Your task to perform on an android device: Show me popular games on the Play Store Image 0: 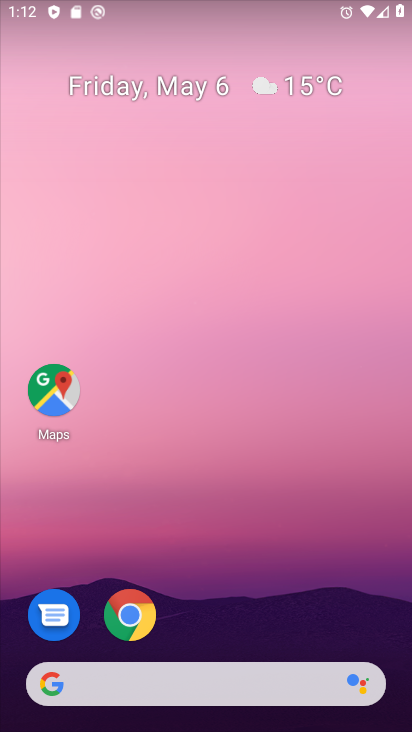
Step 0: drag from (285, 620) to (251, 109)
Your task to perform on an android device: Show me popular games on the Play Store Image 1: 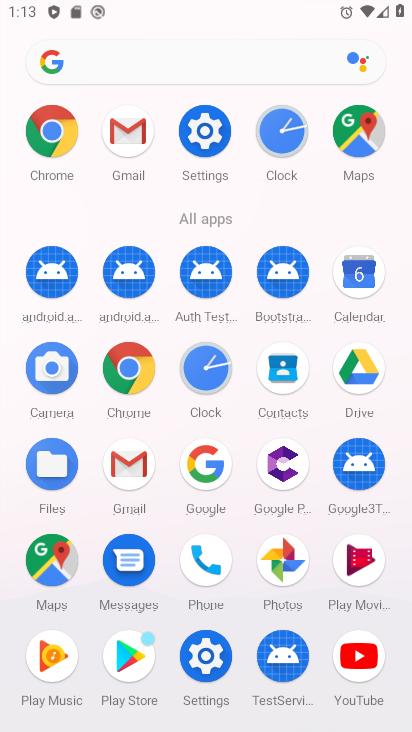
Step 1: click (117, 645)
Your task to perform on an android device: Show me popular games on the Play Store Image 2: 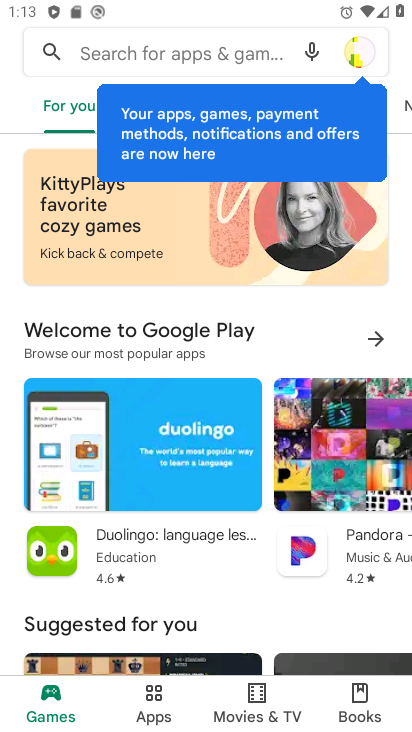
Step 2: drag from (201, 581) to (256, 110)
Your task to perform on an android device: Show me popular games on the Play Store Image 3: 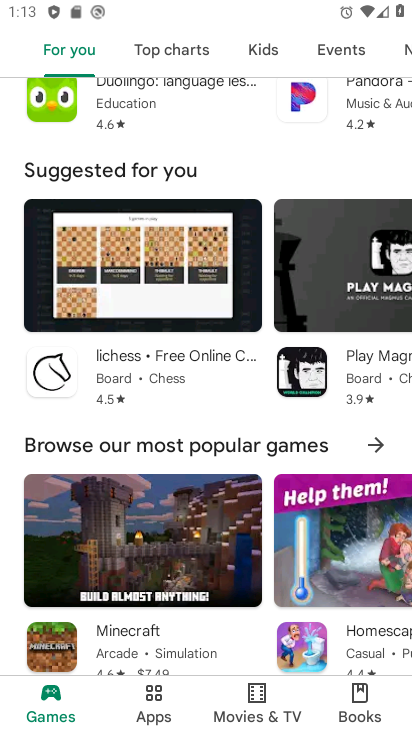
Step 3: click (374, 439)
Your task to perform on an android device: Show me popular games on the Play Store Image 4: 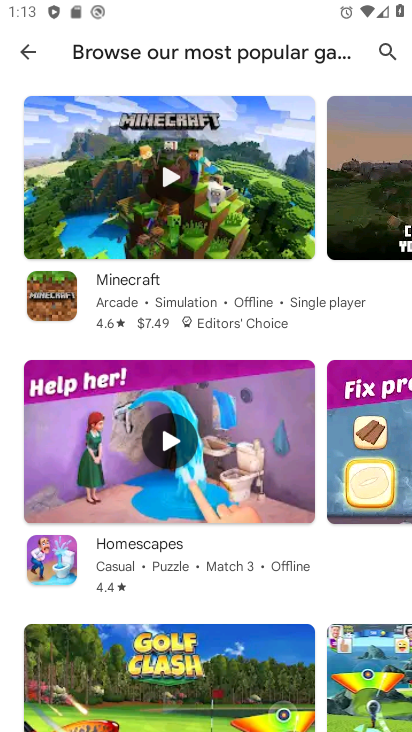
Step 4: task complete